Your task to perform on an android device: open device folders in google photos Image 0: 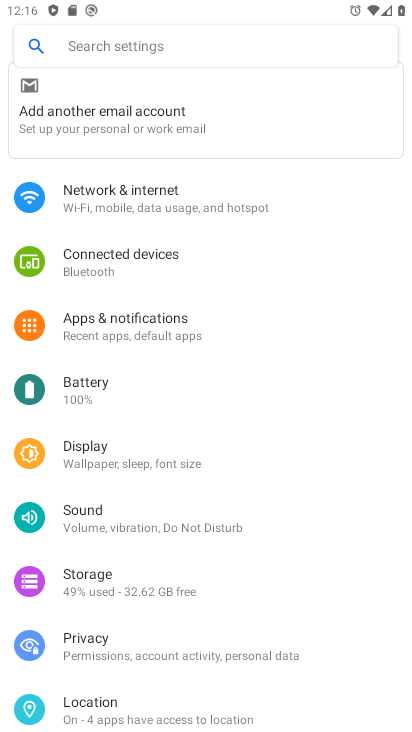
Step 0: press home button
Your task to perform on an android device: open device folders in google photos Image 1: 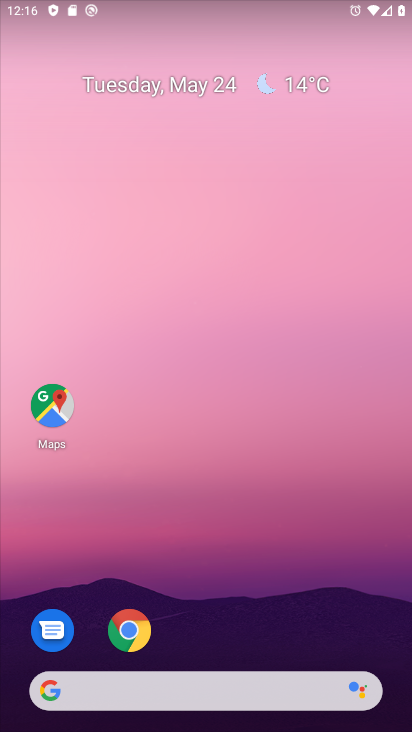
Step 1: drag from (397, 616) to (369, 175)
Your task to perform on an android device: open device folders in google photos Image 2: 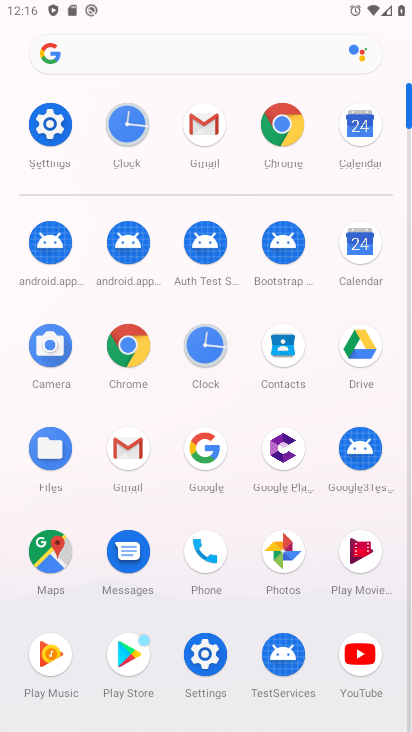
Step 2: click (271, 540)
Your task to perform on an android device: open device folders in google photos Image 3: 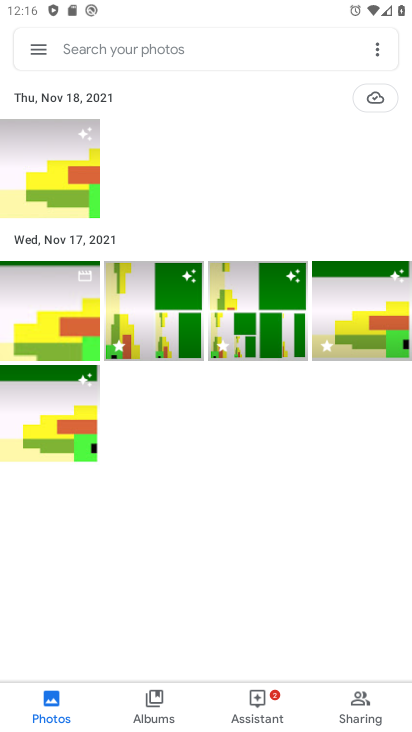
Step 3: task complete